Your task to perform on an android device: Open the map Image 0: 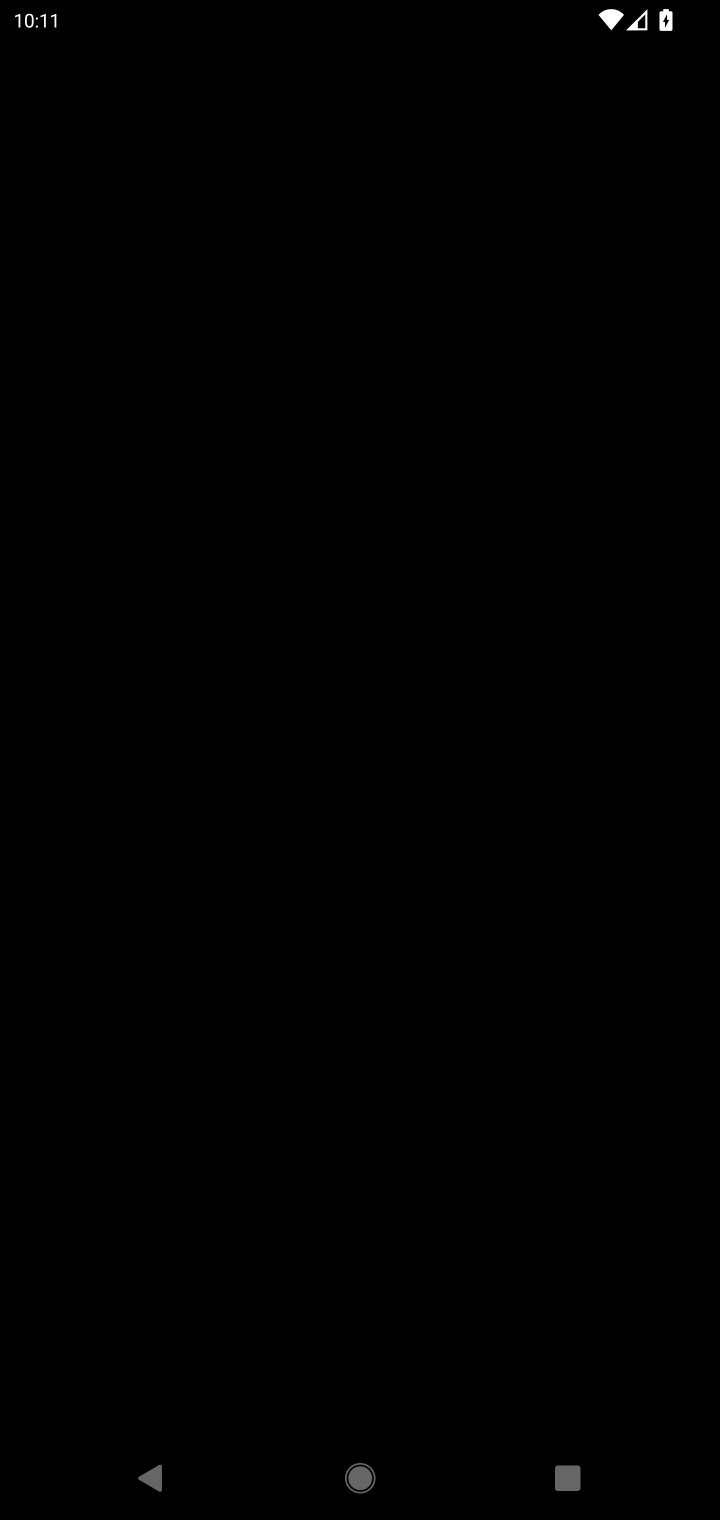
Step 0: press back button
Your task to perform on an android device: Open the map Image 1: 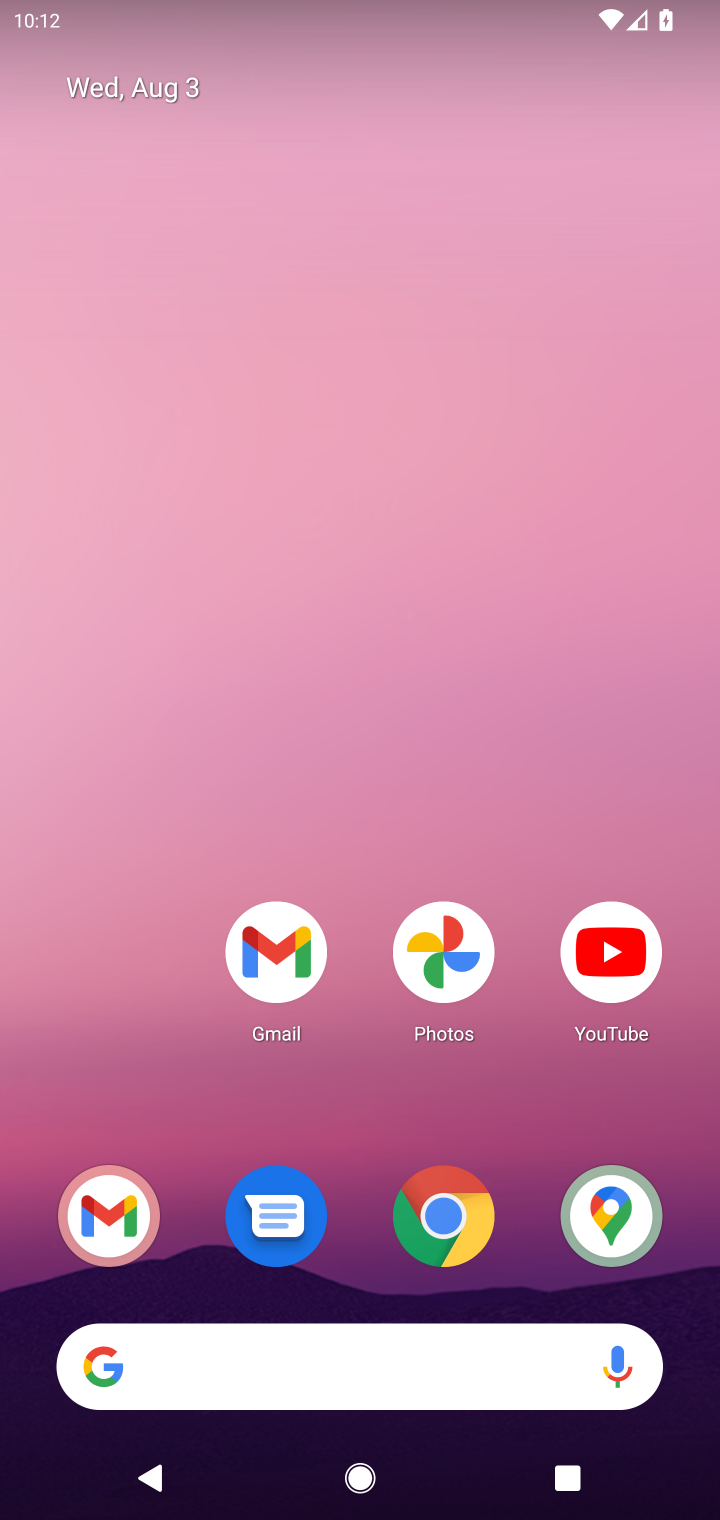
Step 1: click (263, 941)
Your task to perform on an android device: Open the map Image 2: 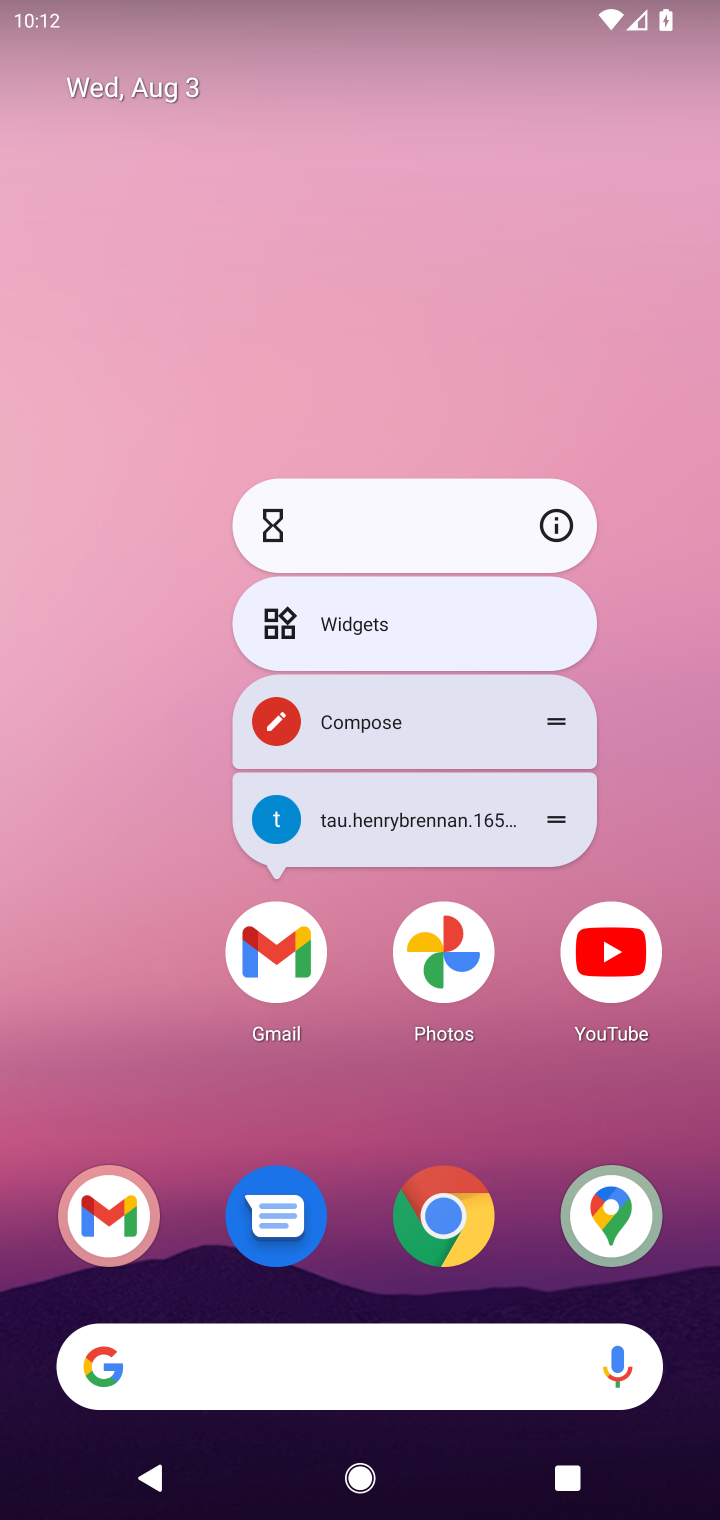
Step 2: click (296, 958)
Your task to perform on an android device: Open the map Image 3: 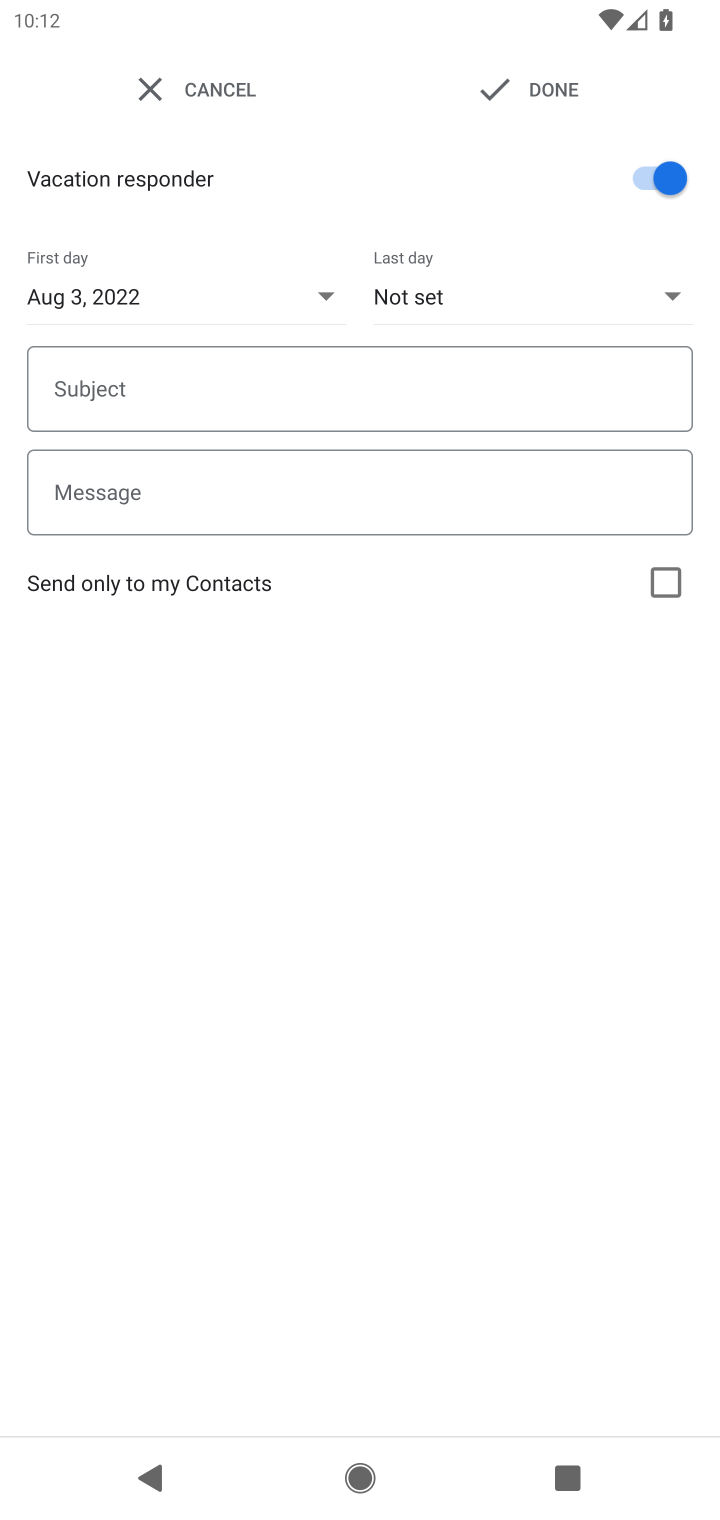
Step 3: press back button
Your task to perform on an android device: Open the map Image 4: 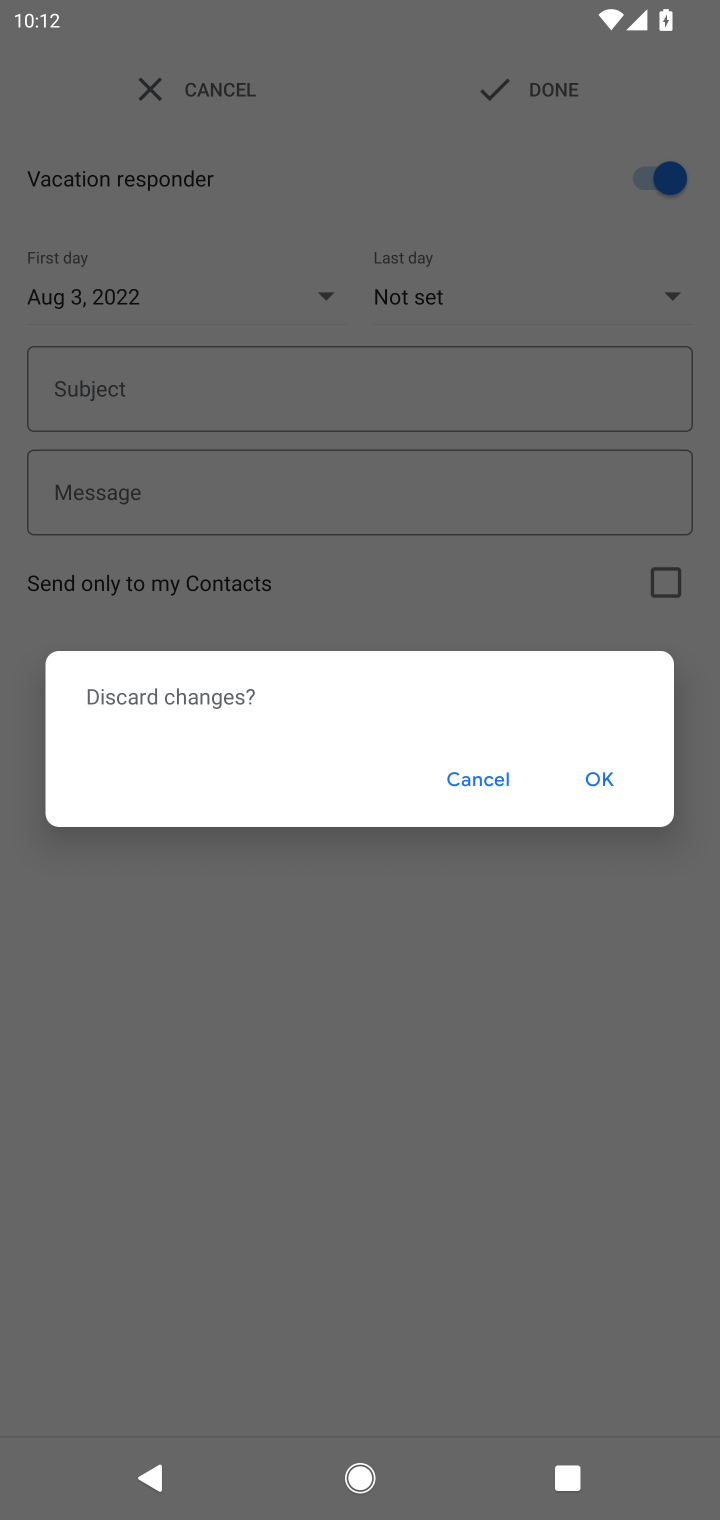
Step 4: press home button
Your task to perform on an android device: Open the map Image 5: 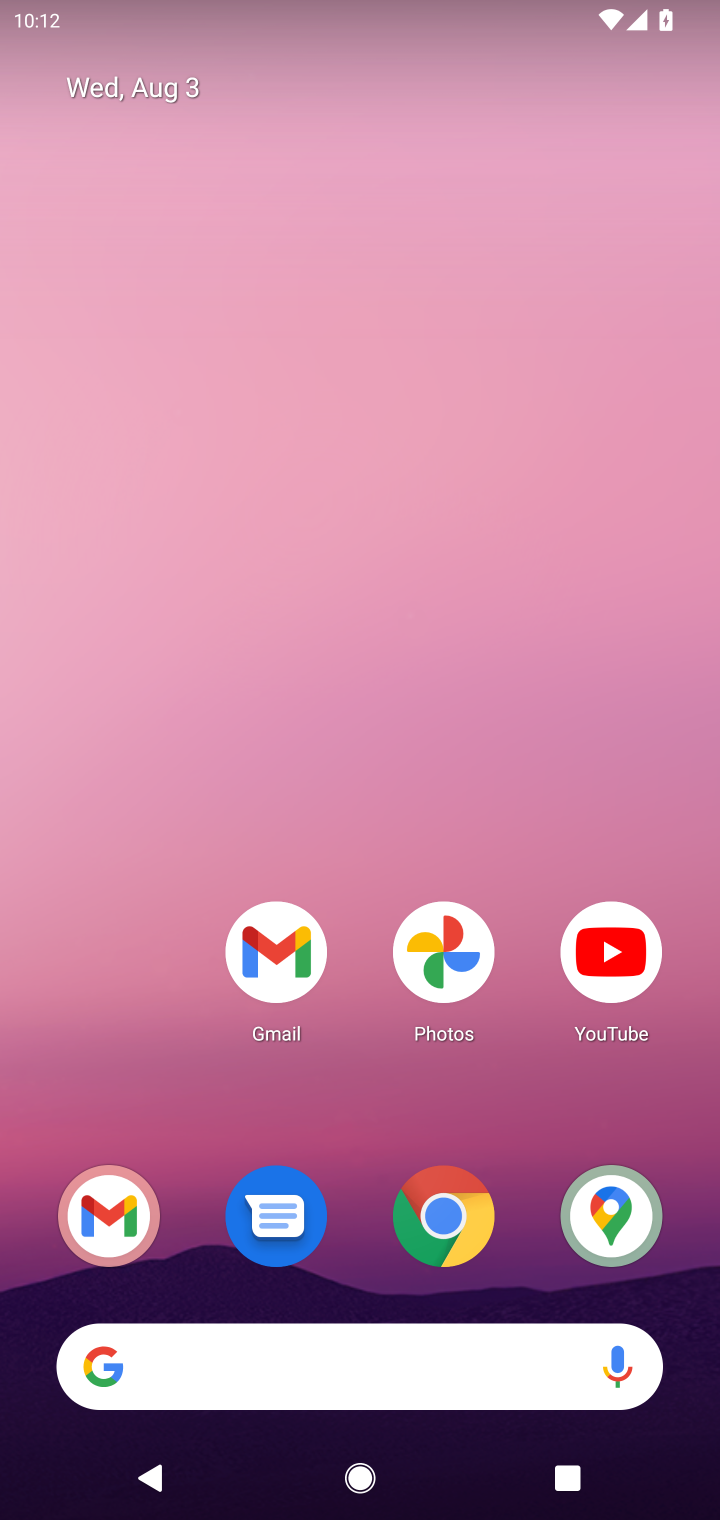
Step 5: click (599, 1220)
Your task to perform on an android device: Open the map Image 6: 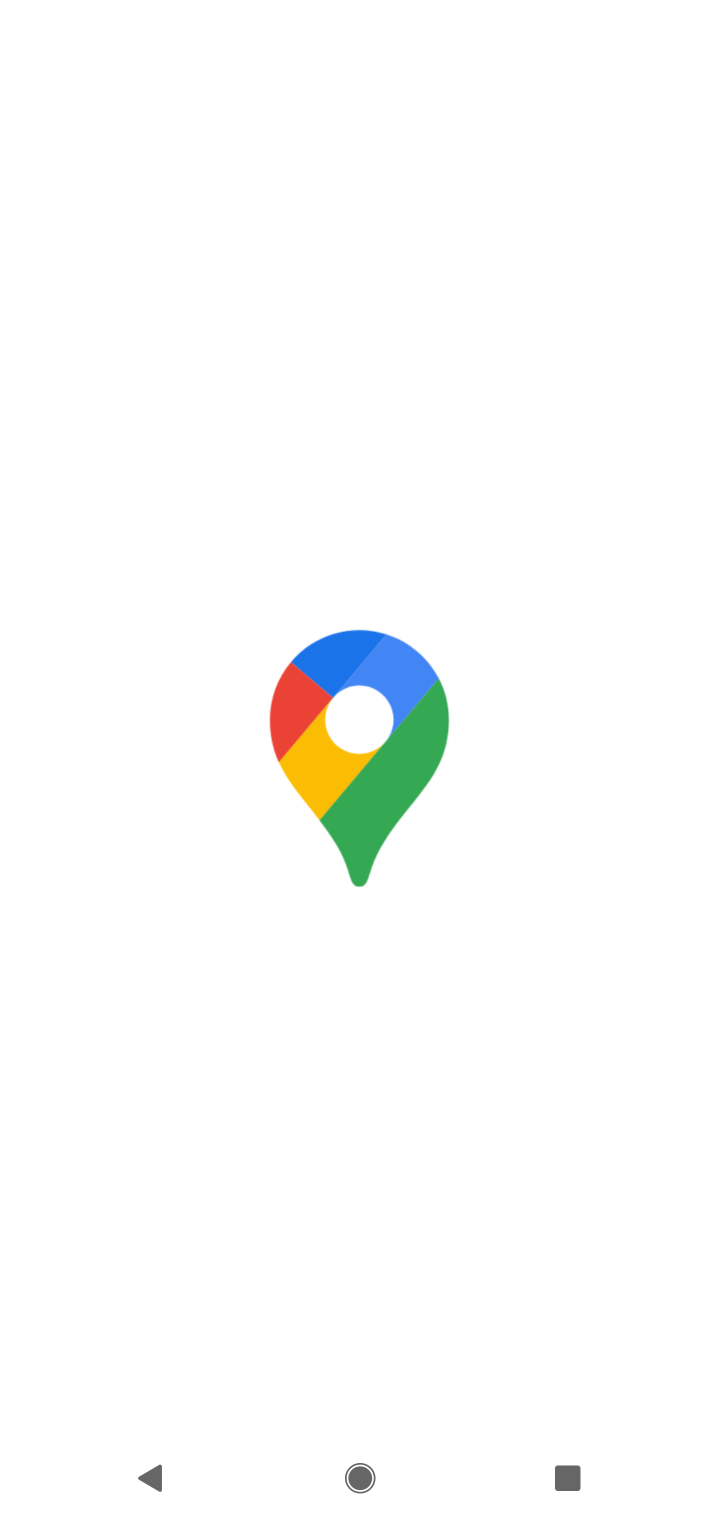
Step 6: task complete